Your task to perform on an android device: Search for "The Dispatcher" by John Scalzi on Goodreads Image 0: 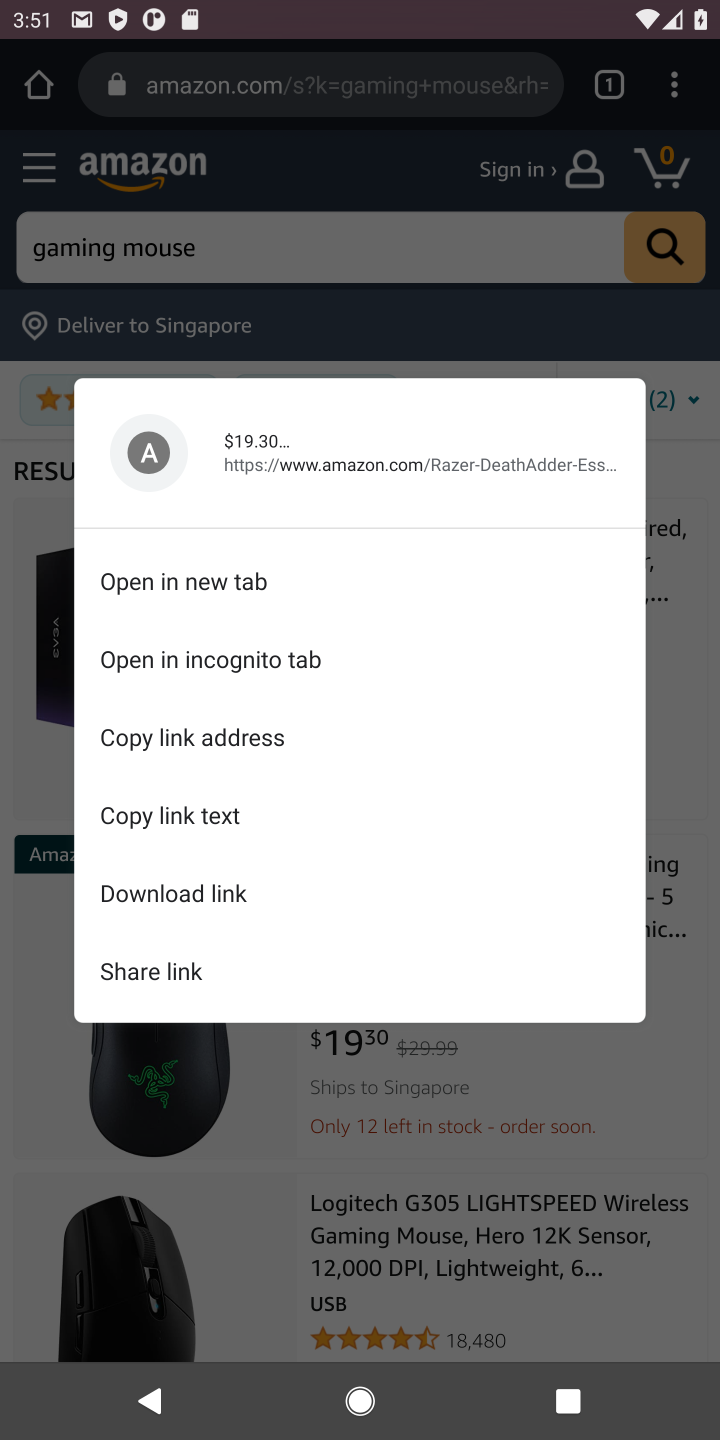
Step 0: drag from (702, 344) to (550, 707)
Your task to perform on an android device: Search for "The Dispatcher" by John Scalzi on Goodreads Image 1: 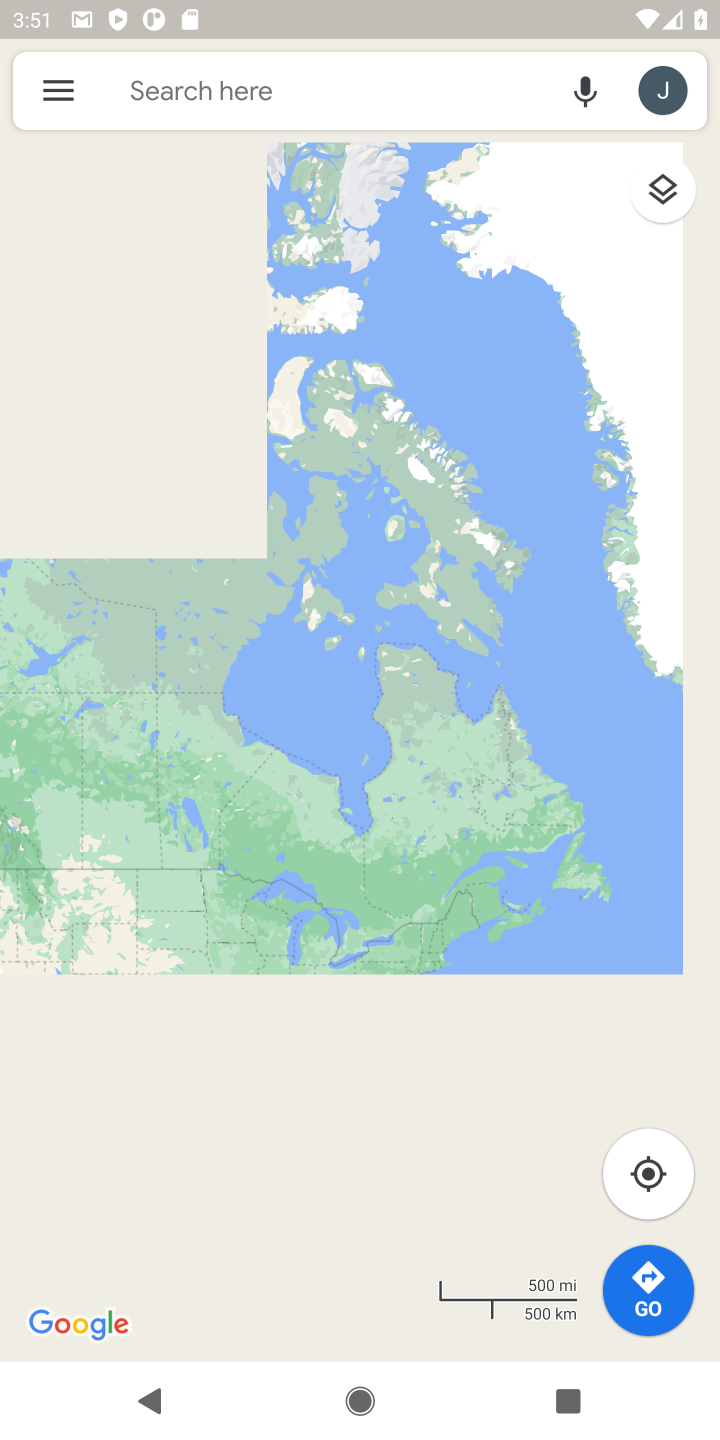
Step 1: press home button
Your task to perform on an android device: Search for "The Dispatcher" by John Scalzi on Goodreads Image 2: 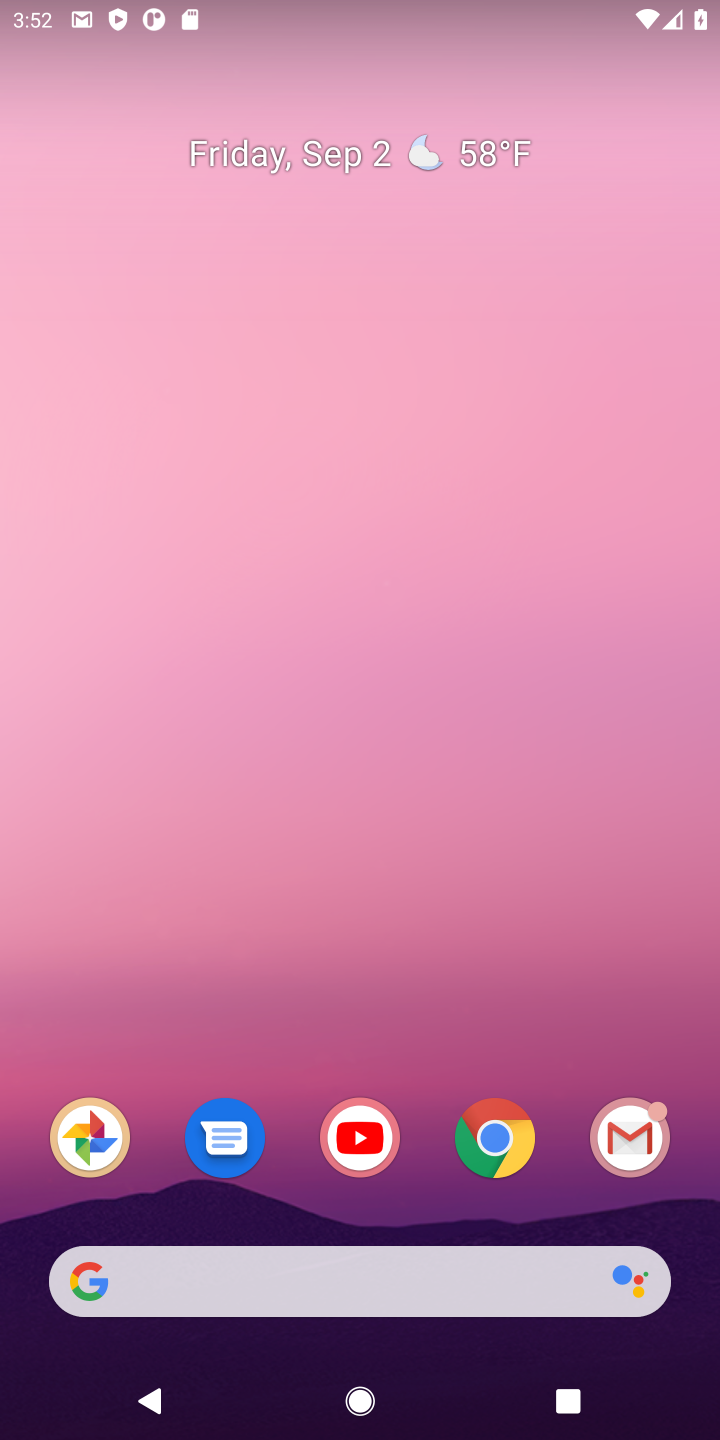
Step 2: click (521, 1128)
Your task to perform on an android device: Search for "The Dispatcher" by John Scalzi on Goodreads Image 3: 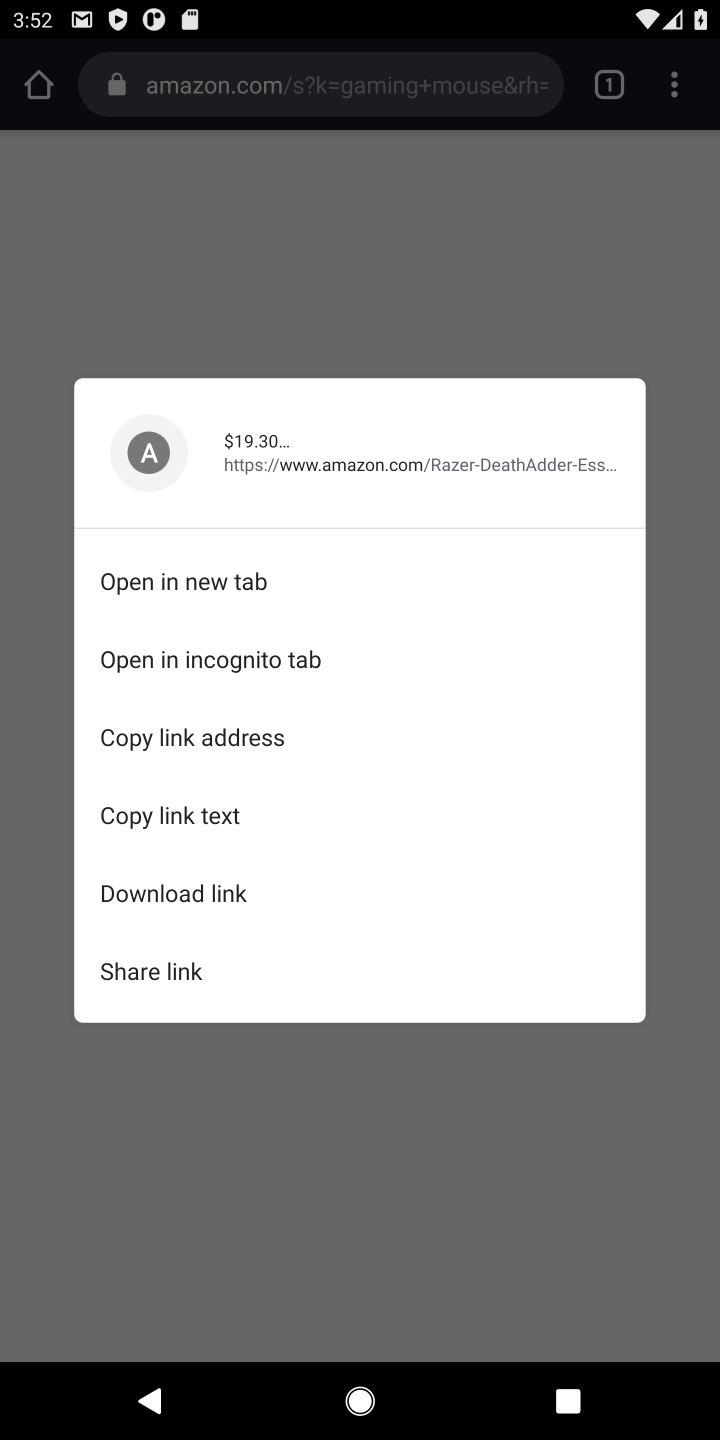
Step 3: click (395, 137)
Your task to perform on an android device: Search for "The Dispatcher" by John Scalzi on Goodreads Image 4: 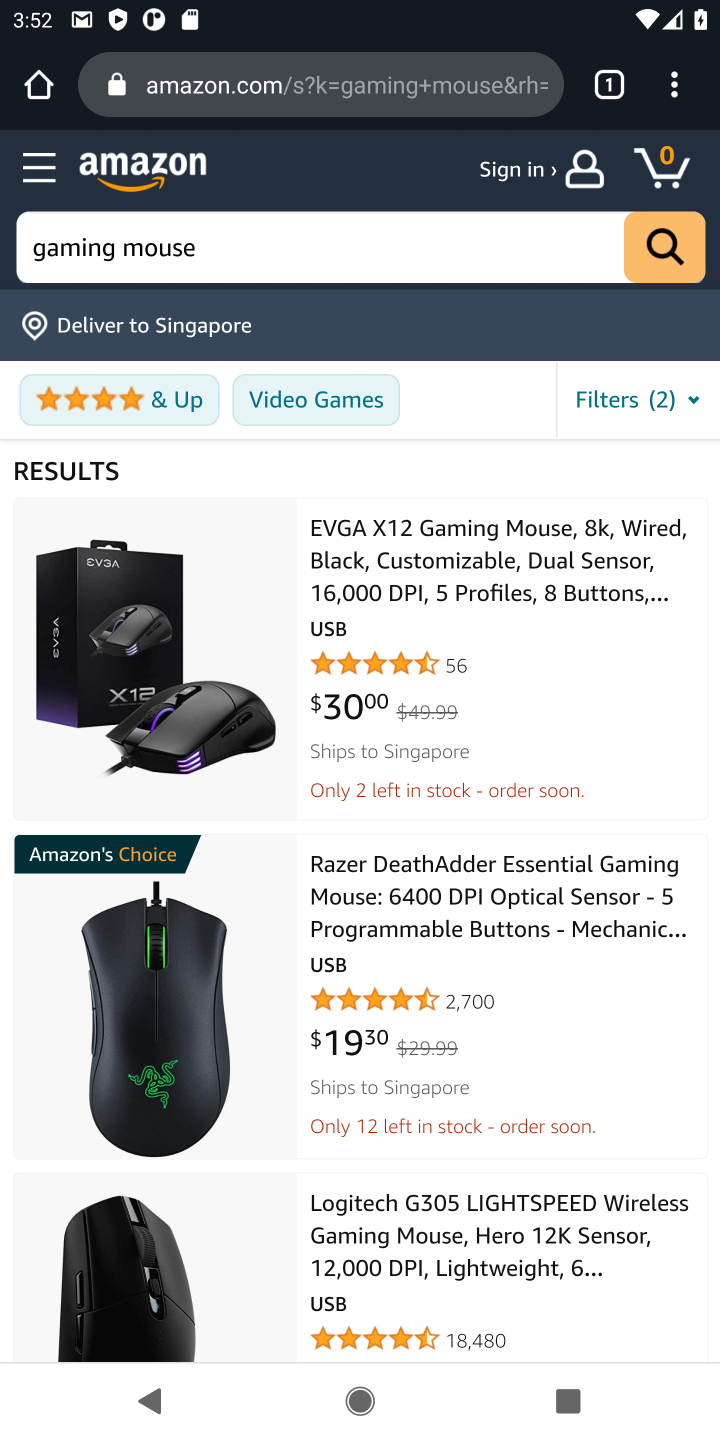
Step 4: click (339, 90)
Your task to perform on an android device: Search for "The Dispatcher" by John Scalzi on Goodreads Image 5: 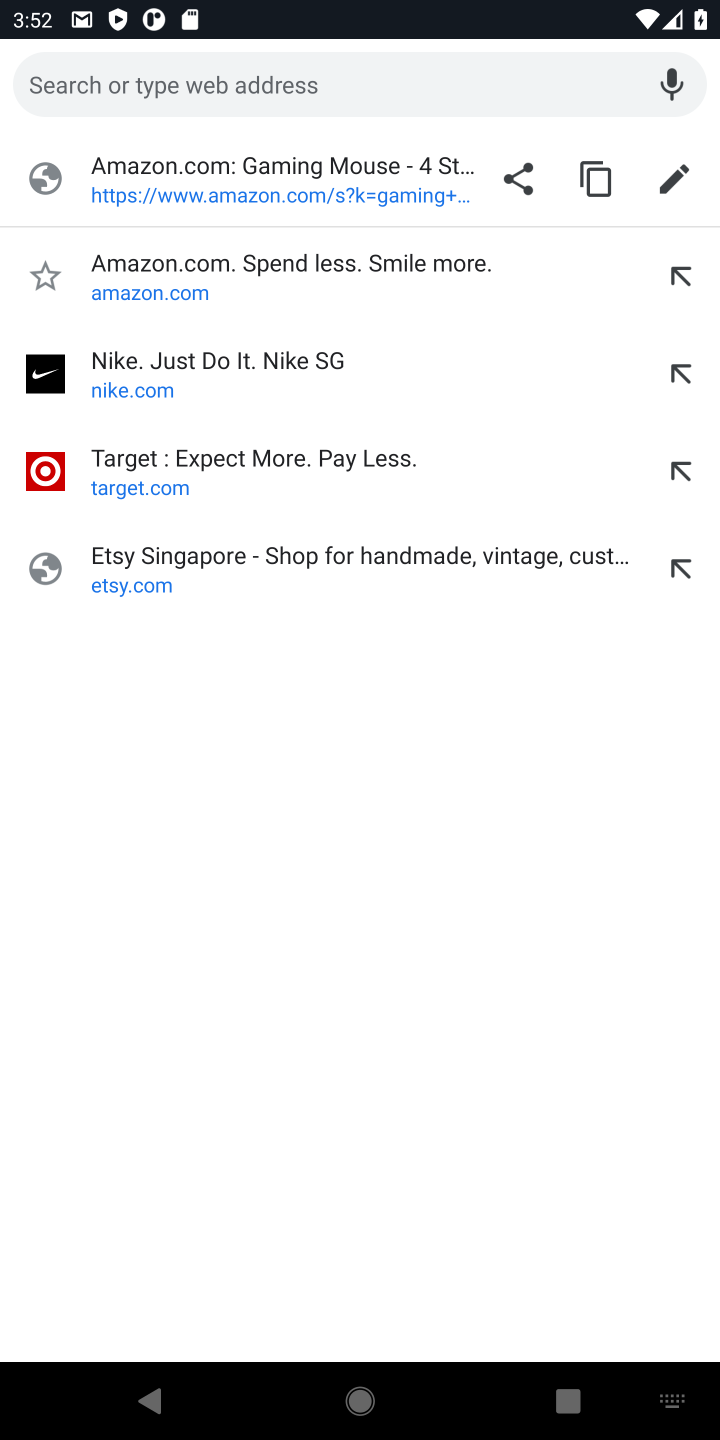
Step 5: type "goodreads"
Your task to perform on an android device: Search for "The Dispatcher" by John Scalzi on Goodreads Image 6: 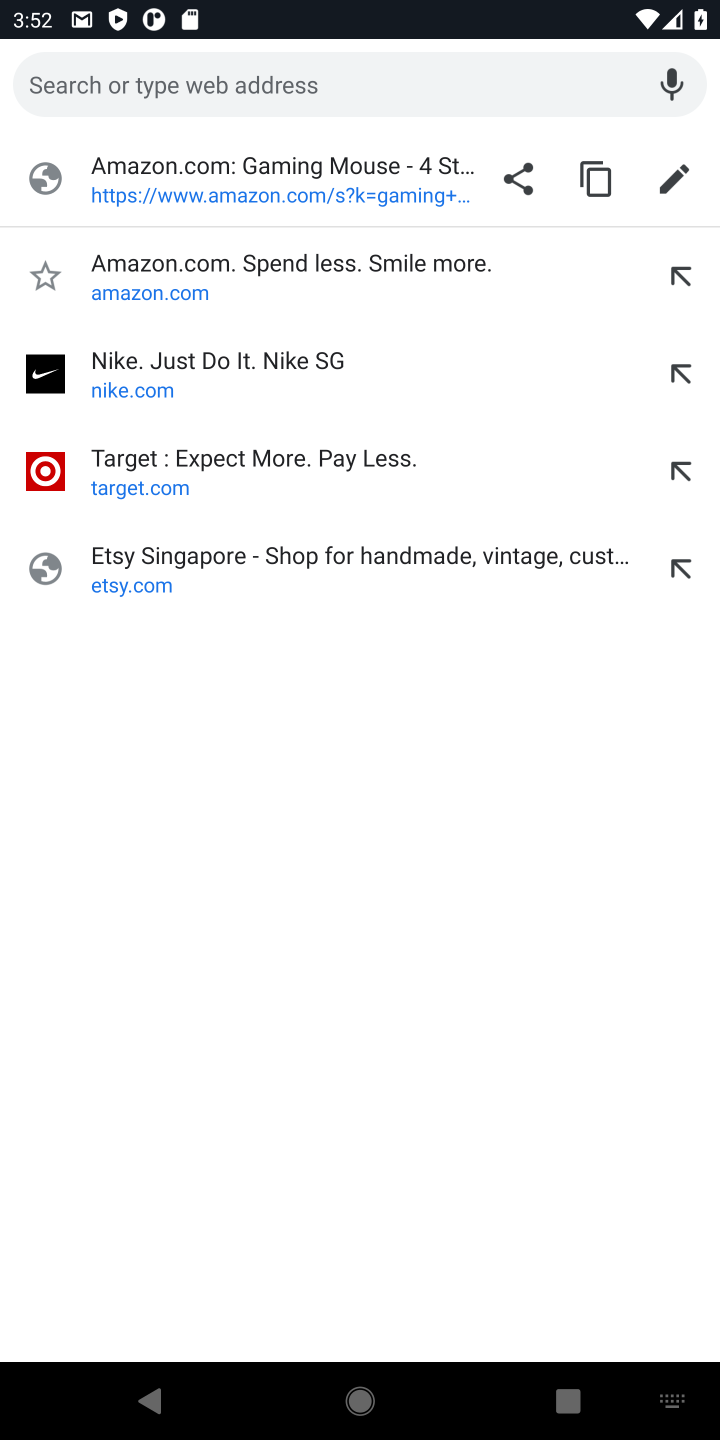
Step 6: click (586, 739)
Your task to perform on an android device: Search for "The Dispatcher" by John Scalzi on Goodreads Image 7: 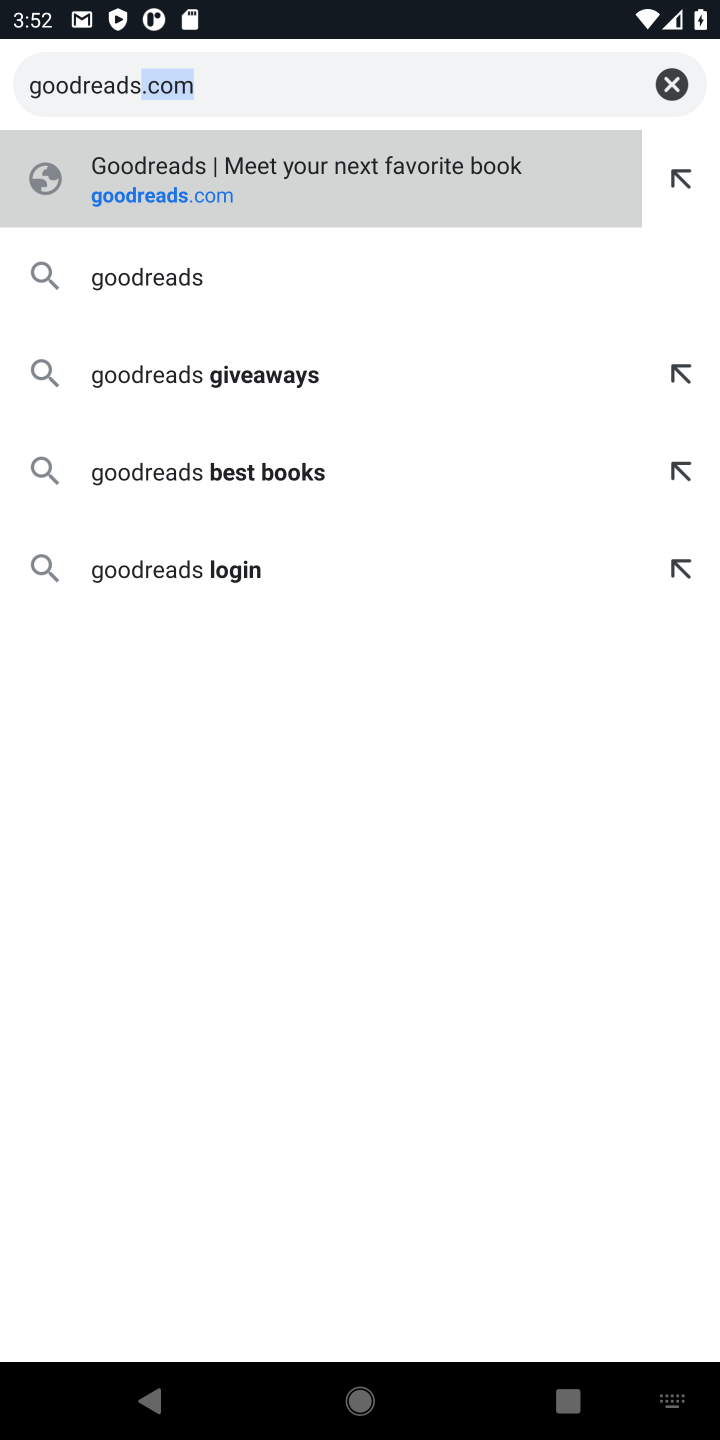
Step 7: click (272, 198)
Your task to perform on an android device: Search for "The Dispatcher" by John Scalzi on Goodreads Image 8: 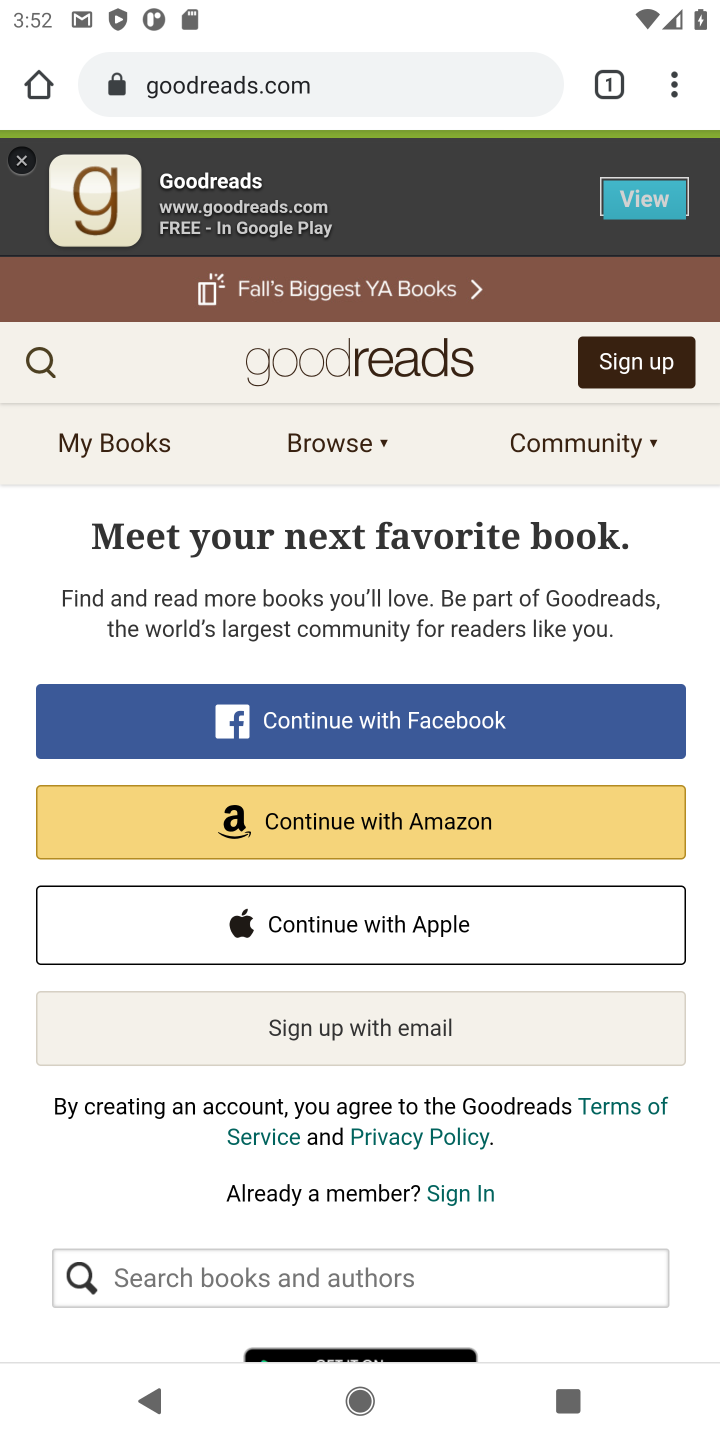
Step 8: click (29, 356)
Your task to perform on an android device: Search for "The Dispatcher" by John Scalzi on Goodreads Image 9: 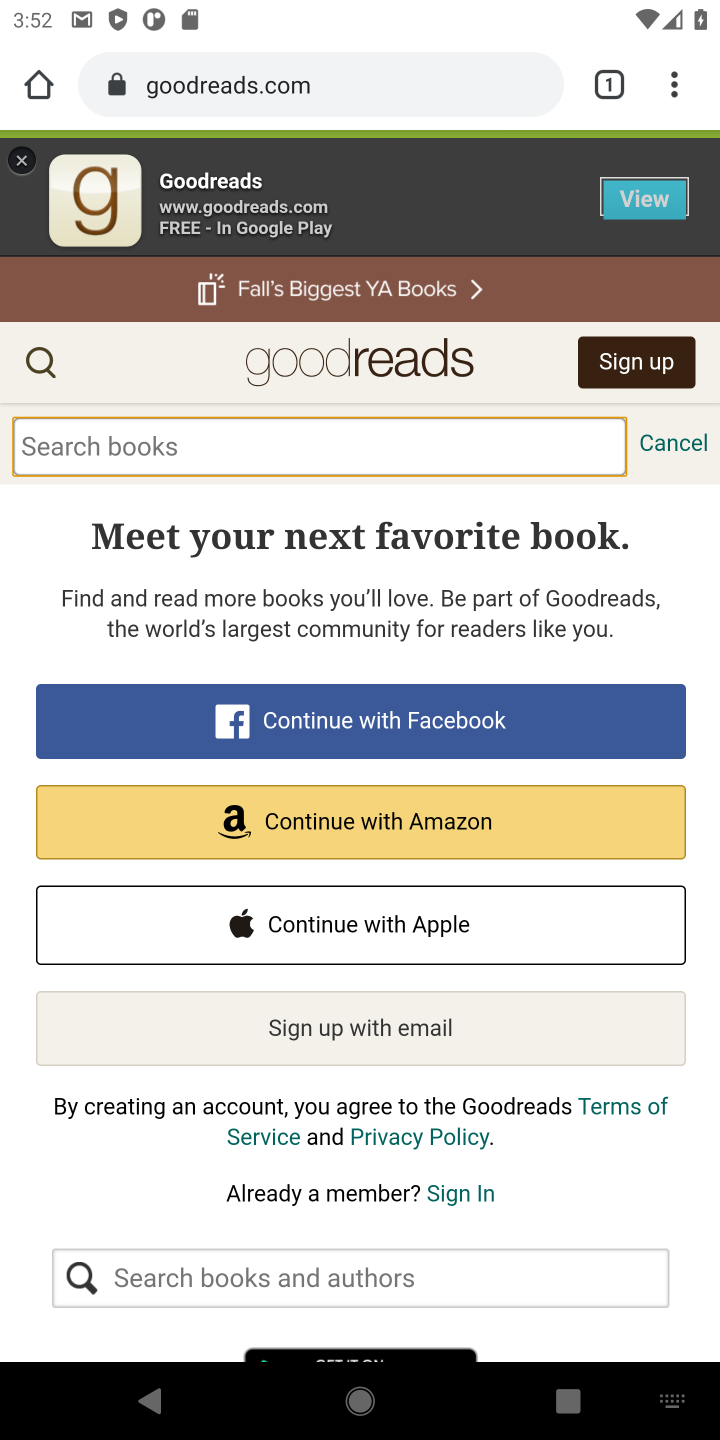
Step 9: type "the dispatcher by john scalzi"
Your task to perform on an android device: Search for "The Dispatcher" by John Scalzi on Goodreads Image 10: 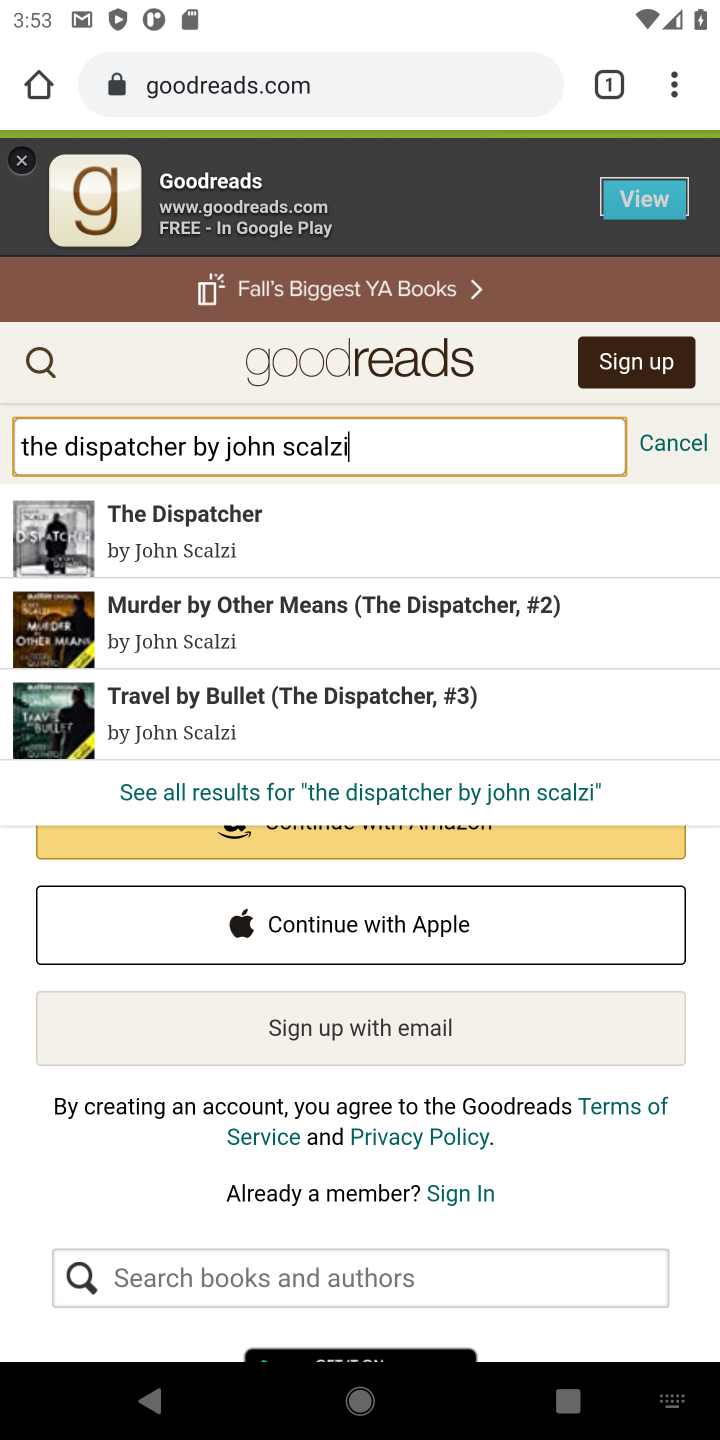
Step 10: click (360, 537)
Your task to perform on an android device: Search for "The Dispatcher" by John Scalzi on Goodreads Image 11: 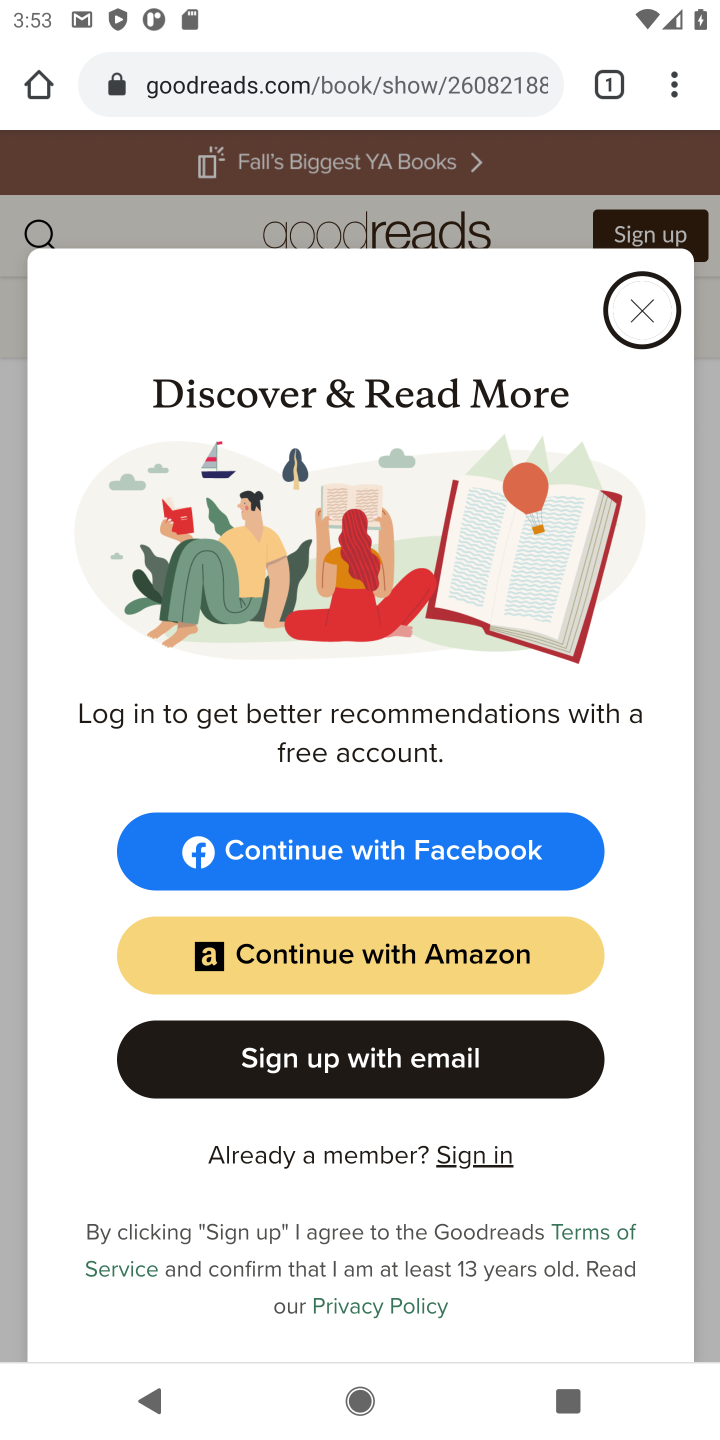
Step 11: click (643, 297)
Your task to perform on an android device: Search for "The Dispatcher" by John Scalzi on Goodreads Image 12: 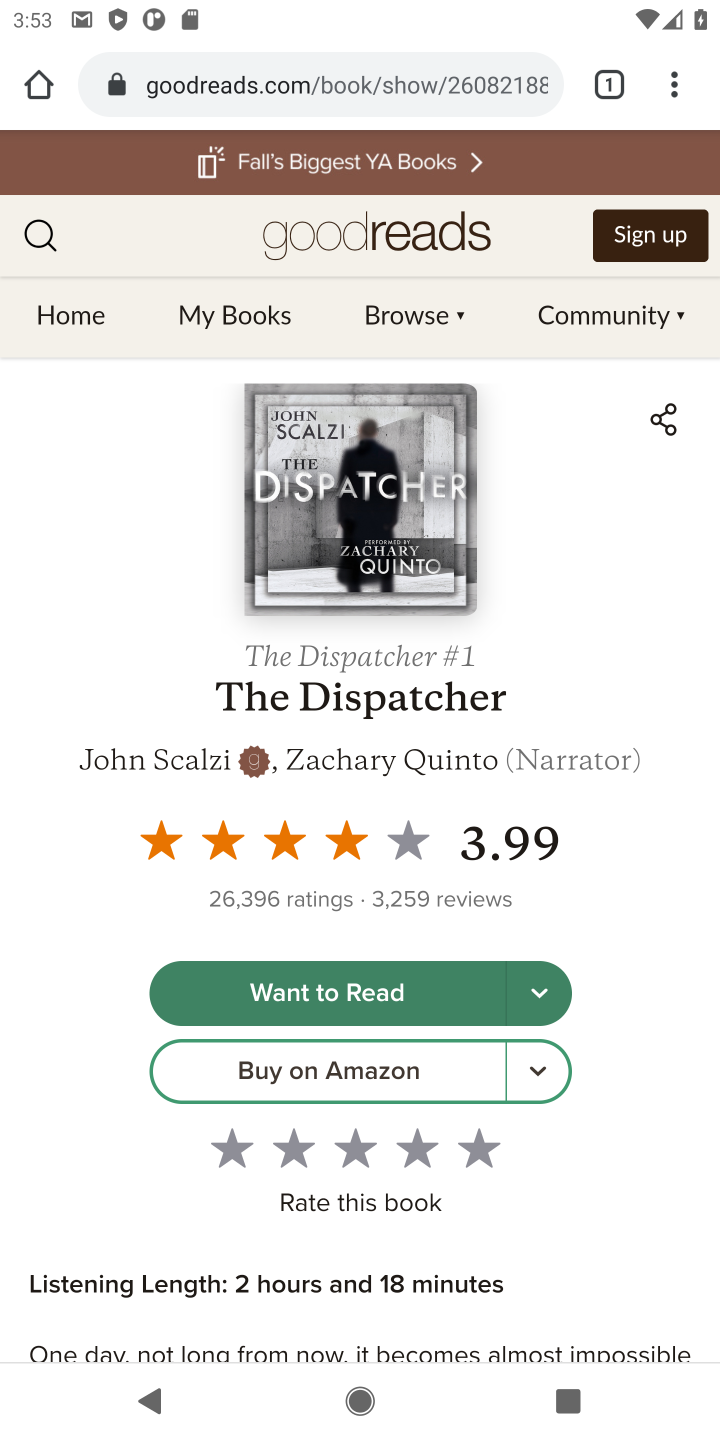
Step 12: task complete